Your task to perform on an android device: Open network settings Image 0: 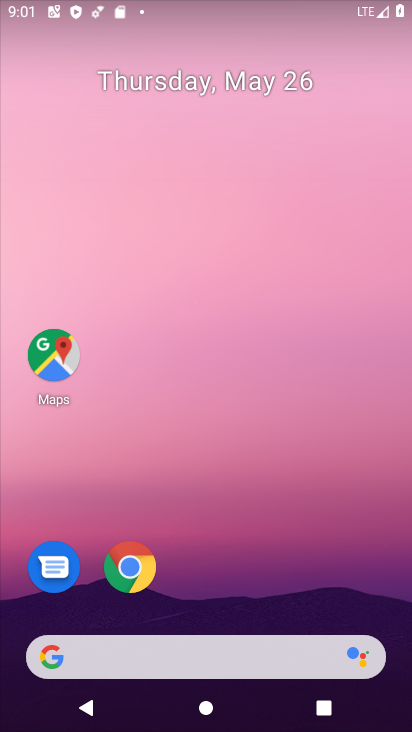
Step 0: drag from (252, 643) to (275, 95)
Your task to perform on an android device: Open network settings Image 1: 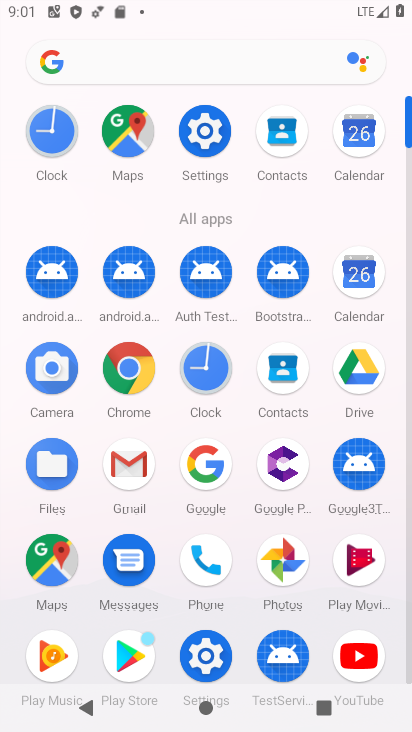
Step 1: click (212, 138)
Your task to perform on an android device: Open network settings Image 2: 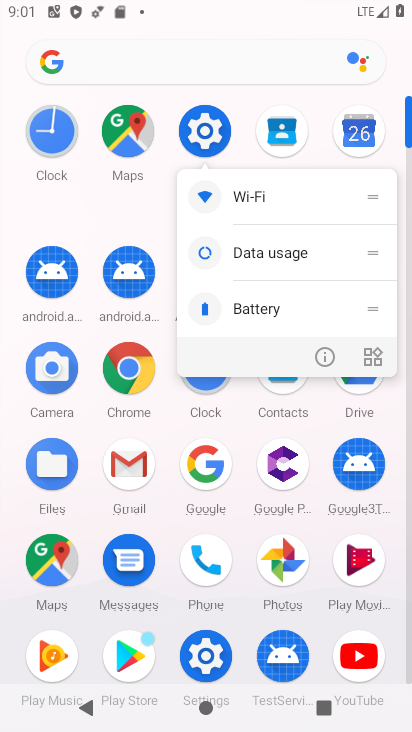
Step 2: click (212, 138)
Your task to perform on an android device: Open network settings Image 3: 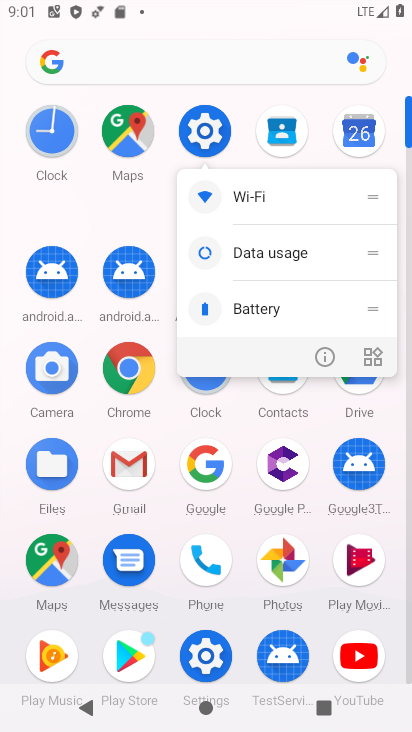
Step 3: click (212, 138)
Your task to perform on an android device: Open network settings Image 4: 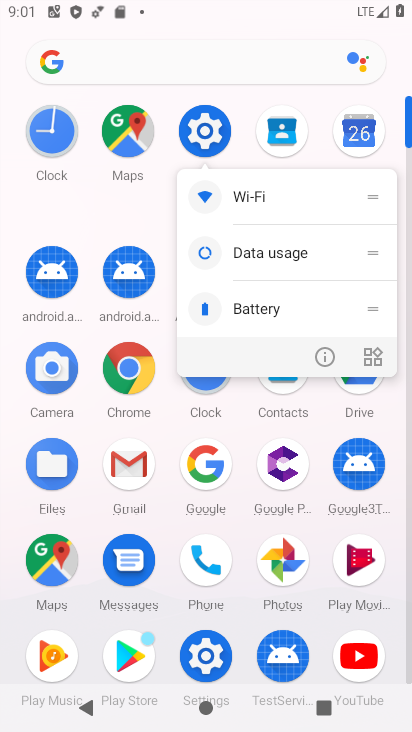
Step 4: click (215, 135)
Your task to perform on an android device: Open network settings Image 5: 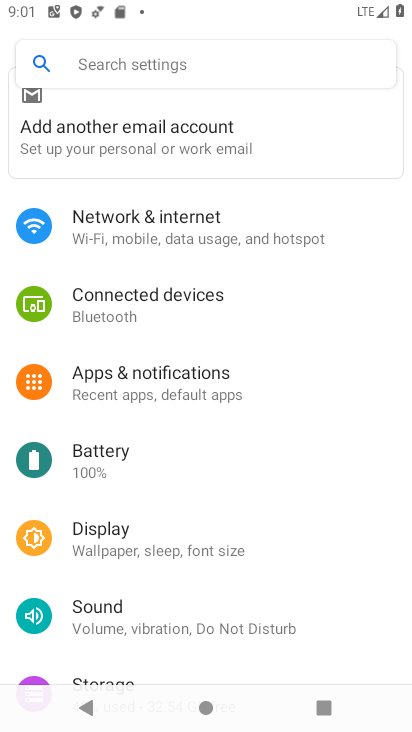
Step 5: click (216, 229)
Your task to perform on an android device: Open network settings Image 6: 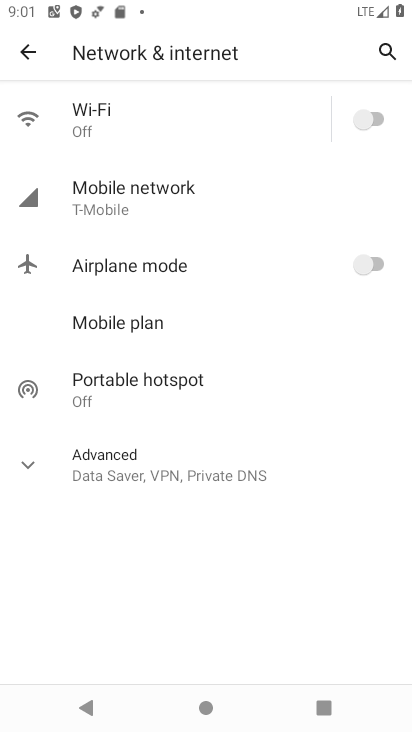
Step 6: task complete